Your task to perform on an android device: Do I have any events tomorrow? Image 0: 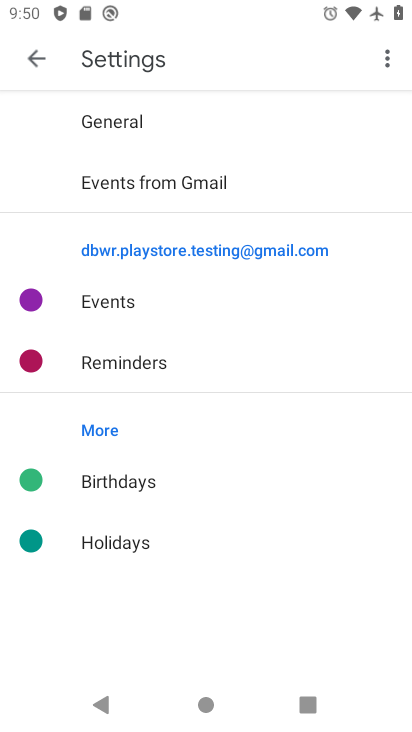
Step 0: click (39, 56)
Your task to perform on an android device: Do I have any events tomorrow? Image 1: 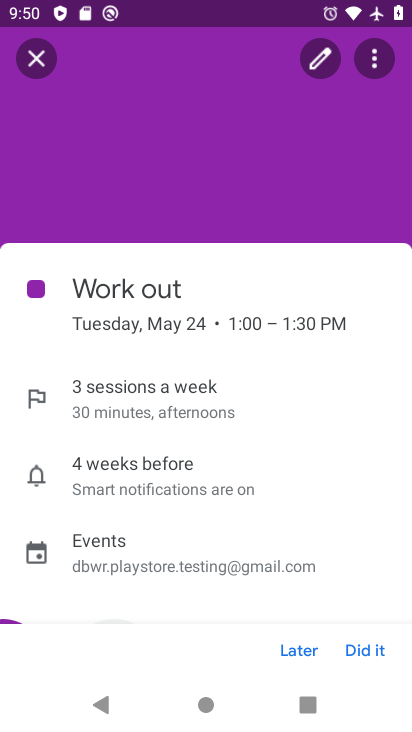
Step 1: click (31, 55)
Your task to perform on an android device: Do I have any events tomorrow? Image 2: 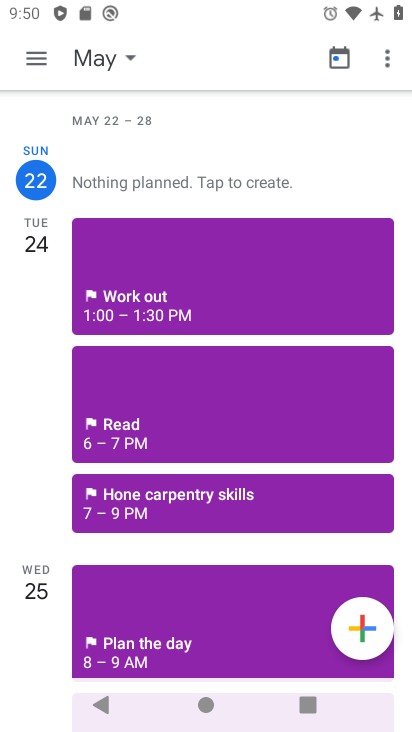
Step 2: click (132, 288)
Your task to perform on an android device: Do I have any events tomorrow? Image 3: 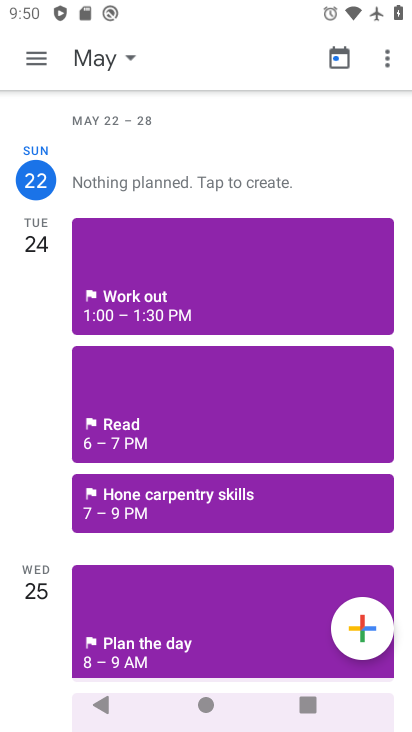
Step 3: click (132, 282)
Your task to perform on an android device: Do I have any events tomorrow? Image 4: 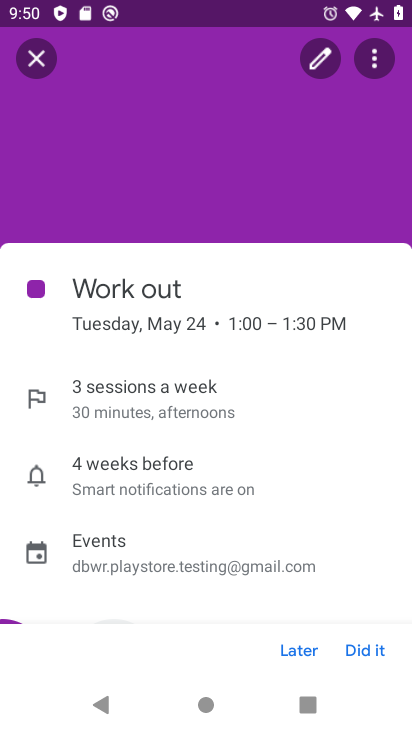
Step 4: task complete